Your task to perform on an android device: Open maps Image 0: 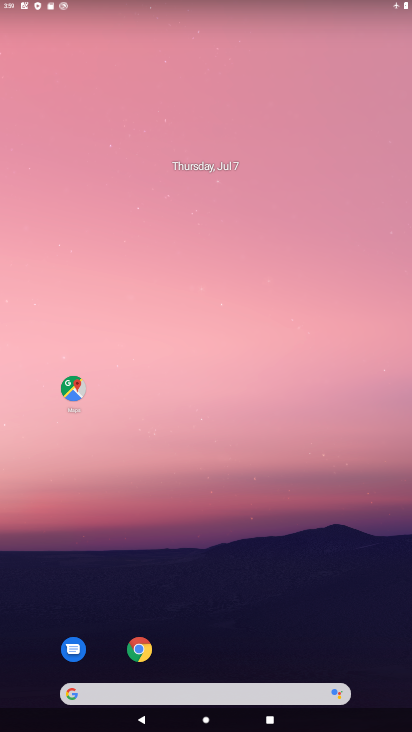
Step 0: drag from (366, 628) to (158, 50)
Your task to perform on an android device: Open maps Image 1: 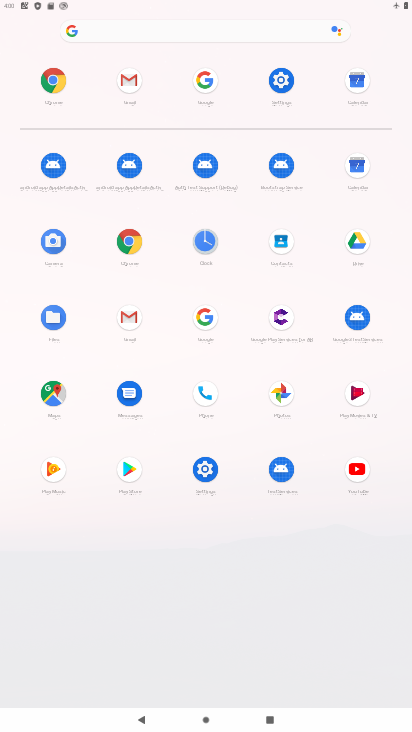
Step 1: click (46, 394)
Your task to perform on an android device: Open maps Image 2: 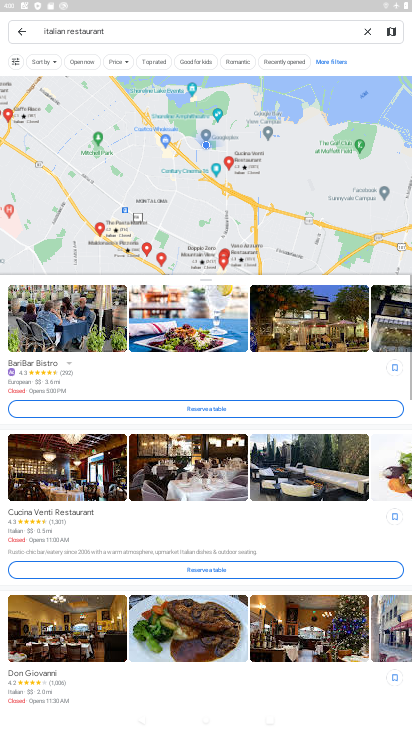
Step 2: click (368, 39)
Your task to perform on an android device: Open maps Image 3: 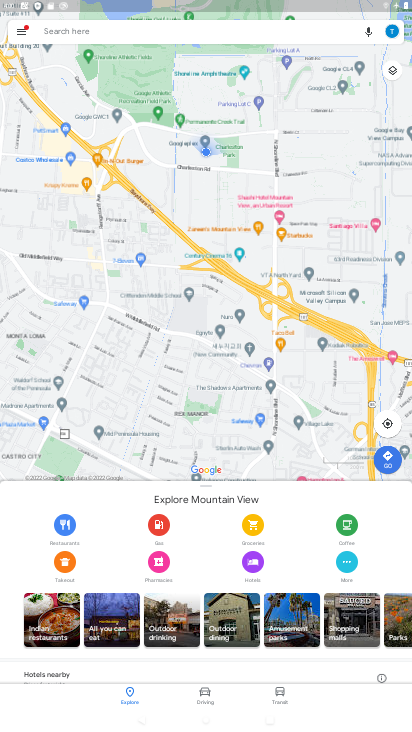
Step 3: task complete